Your task to perform on an android device: open app "Google Chrome" Image 0: 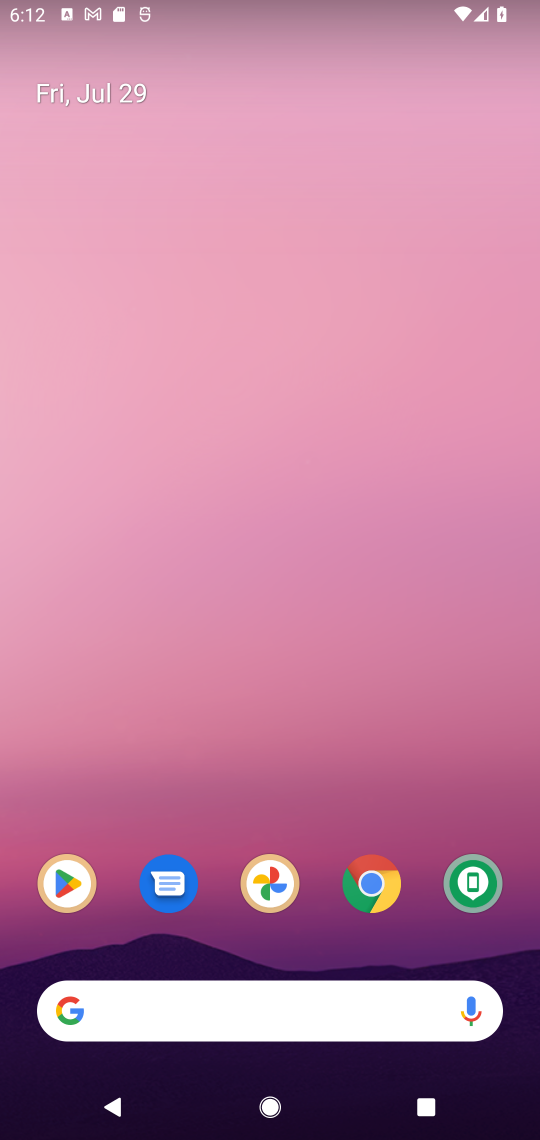
Step 0: click (373, 881)
Your task to perform on an android device: open app "Google Chrome" Image 1: 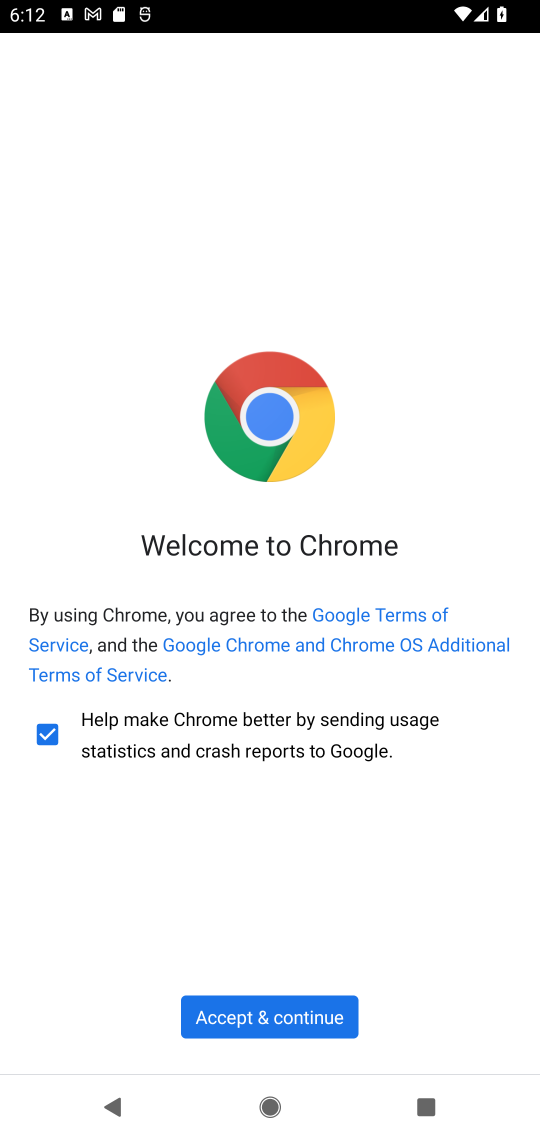
Step 1: click (257, 1011)
Your task to perform on an android device: open app "Google Chrome" Image 2: 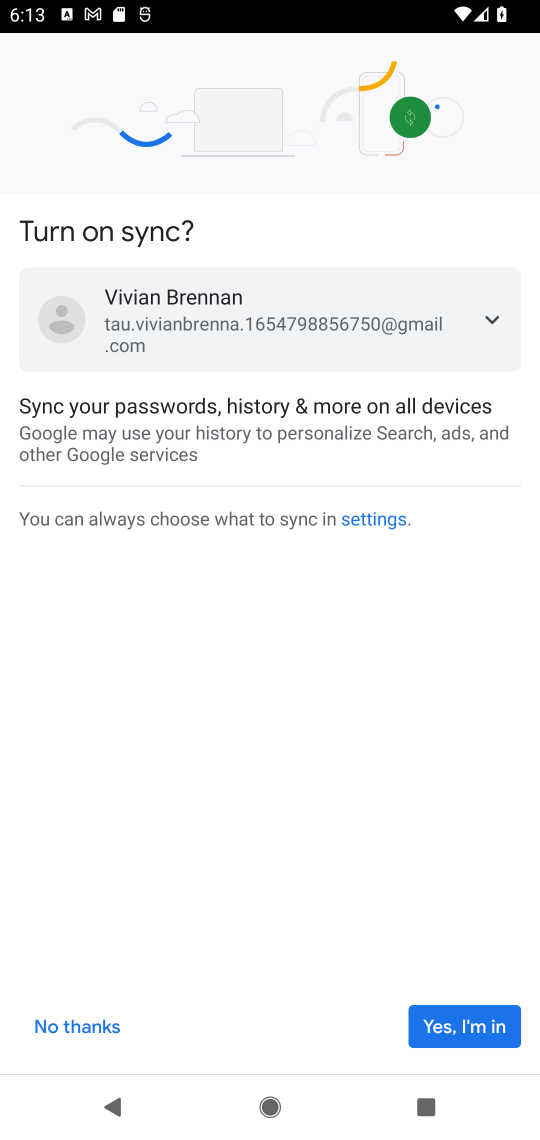
Step 2: task complete